Your task to perform on an android device: change the clock display to digital Image 0: 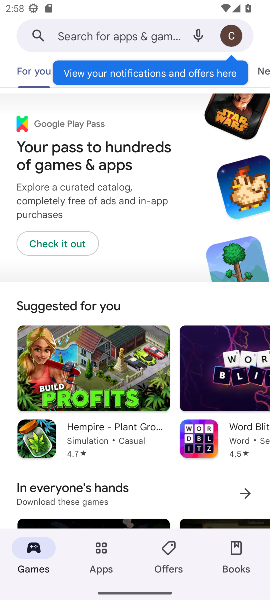
Step 0: press back button
Your task to perform on an android device: change the clock display to digital Image 1: 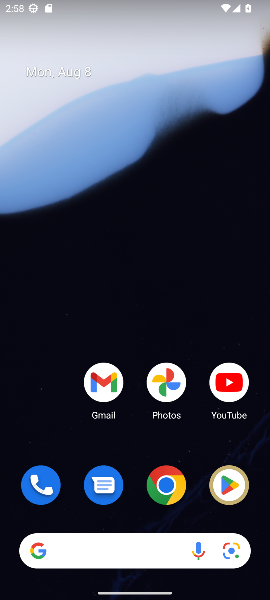
Step 1: drag from (155, 488) to (136, 132)
Your task to perform on an android device: change the clock display to digital Image 2: 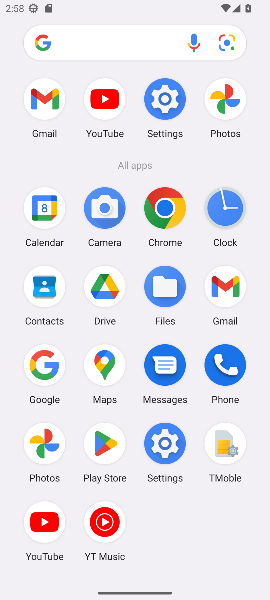
Step 2: click (220, 212)
Your task to perform on an android device: change the clock display to digital Image 3: 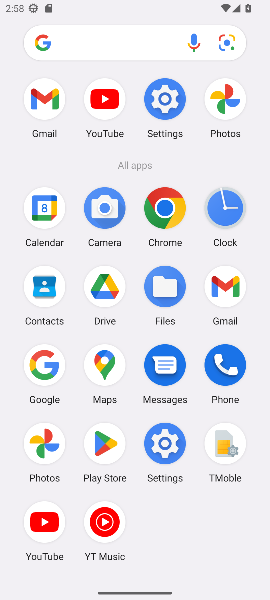
Step 3: click (220, 212)
Your task to perform on an android device: change the clock display to digital Image 4: 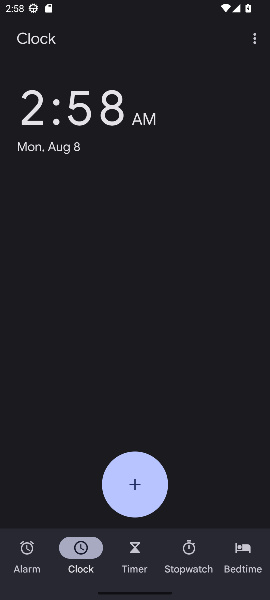
Step 4: click (220, 212)
Your task to perform on an android device: change the clock display to digital Image 5: 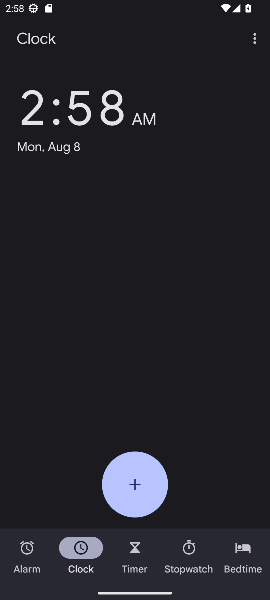
Step 5: click (249, 31)
Your task to perform on an android device: change the clock display to digital Image 6: 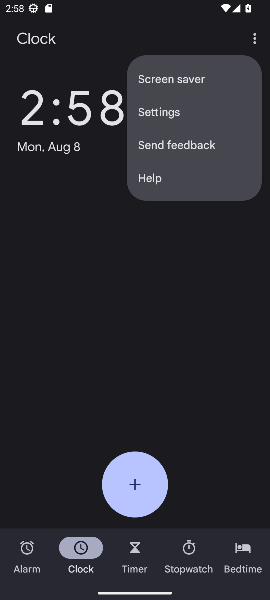
Step 6: click (165, 107)
Your task to perform on an android device: change the clock display to digital Image 7: 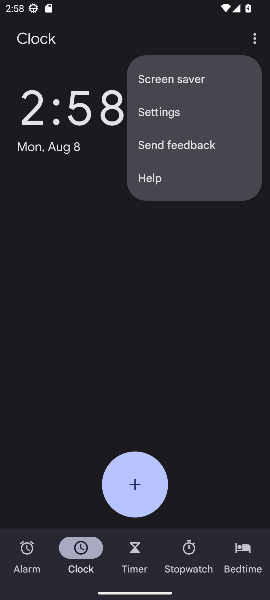
Step 7: click (168, 110)
Your task to perform on an android device: change the clock display to digital Image 8: 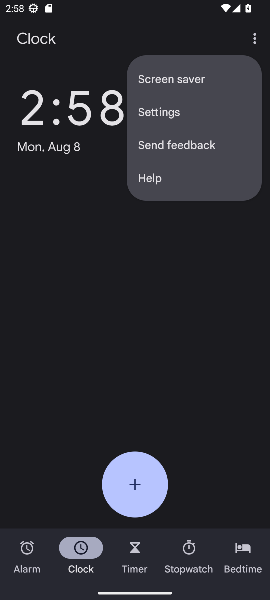
Step 8: click (168, 110)
Your task to perform on an android device: change the clock display to digital Image 9: 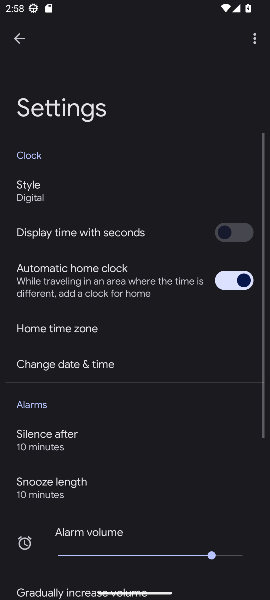
Step 9: drag from (86, 498) to (86, 259)
Your task to perform on an android device: change the clock display to digital Image 10: 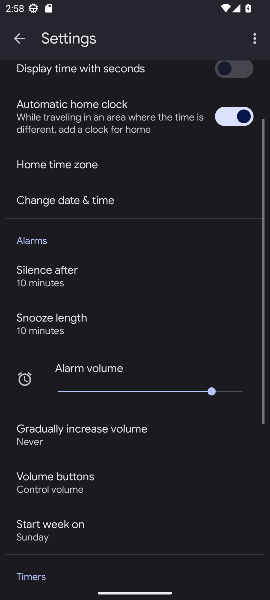
Step 10: drag from (115, 372) to (100, 299)
Your task to perform on an android device: change the clock display to digital Image 11: 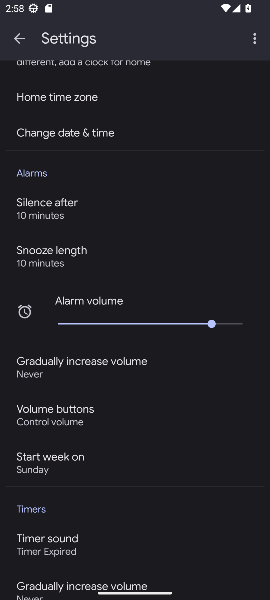
Step 11: click (109, 217)
Your task to perform on an android device: change the clock display to digital Image 12: 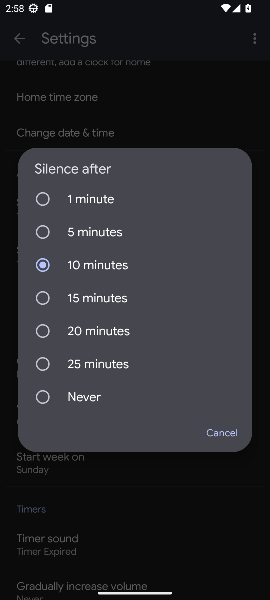
Step 12: click (175, 116)
Your task to perform on an android device: change the clock display to digital Image 13: 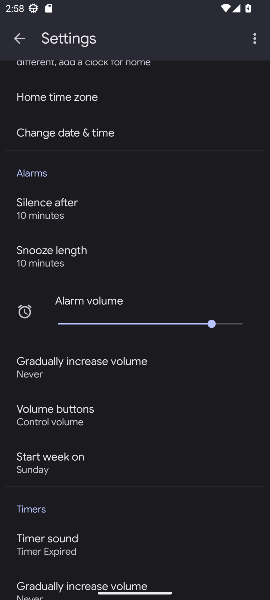
Step 13: drag from (124, 176) to (98, 405)
Your task to perform on an android device: change the clock display to digital Image 14: 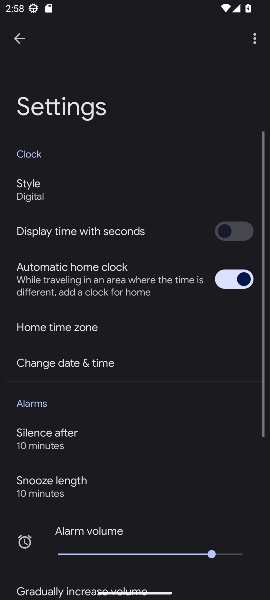
Step 14: drag from (78, 240) to (90, 470)
Your task to perform on an android device: change the clock display to digital Image 15: 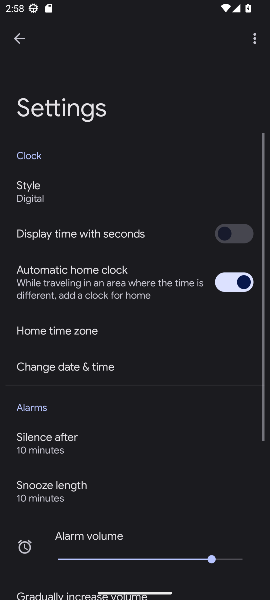
Step 15: drag from (121, 259) to (162, 556)
Your task to perform on an android device: change the clock display to digital Image 16: 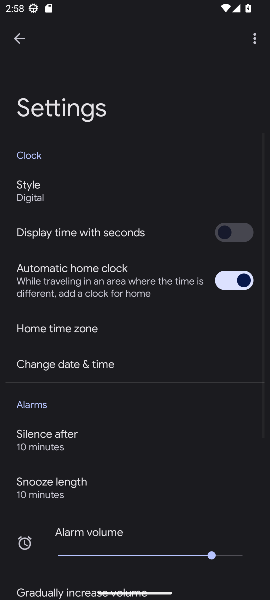
Step 16: click (61, 184)
Your task to perform on an android device: change the clock display to digital Image 17: 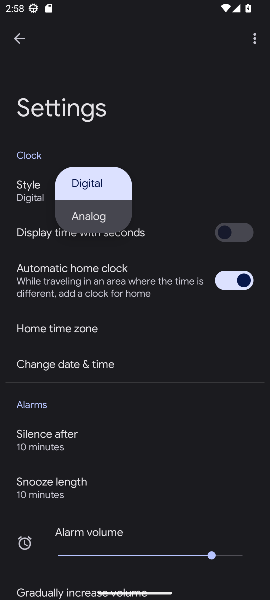
Step 17: click (106, 183)
Your task to perform on an android device: change the clock display to digital Image 18: 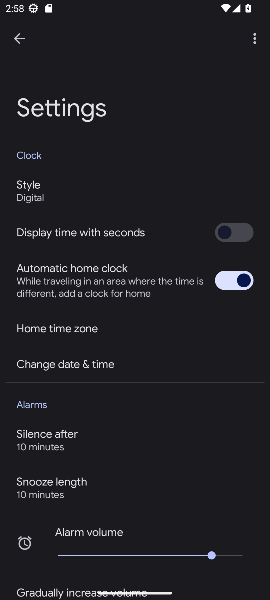
Step 18: task complete